Your task to perform on an android device: install app "Google Translate" Image 0: 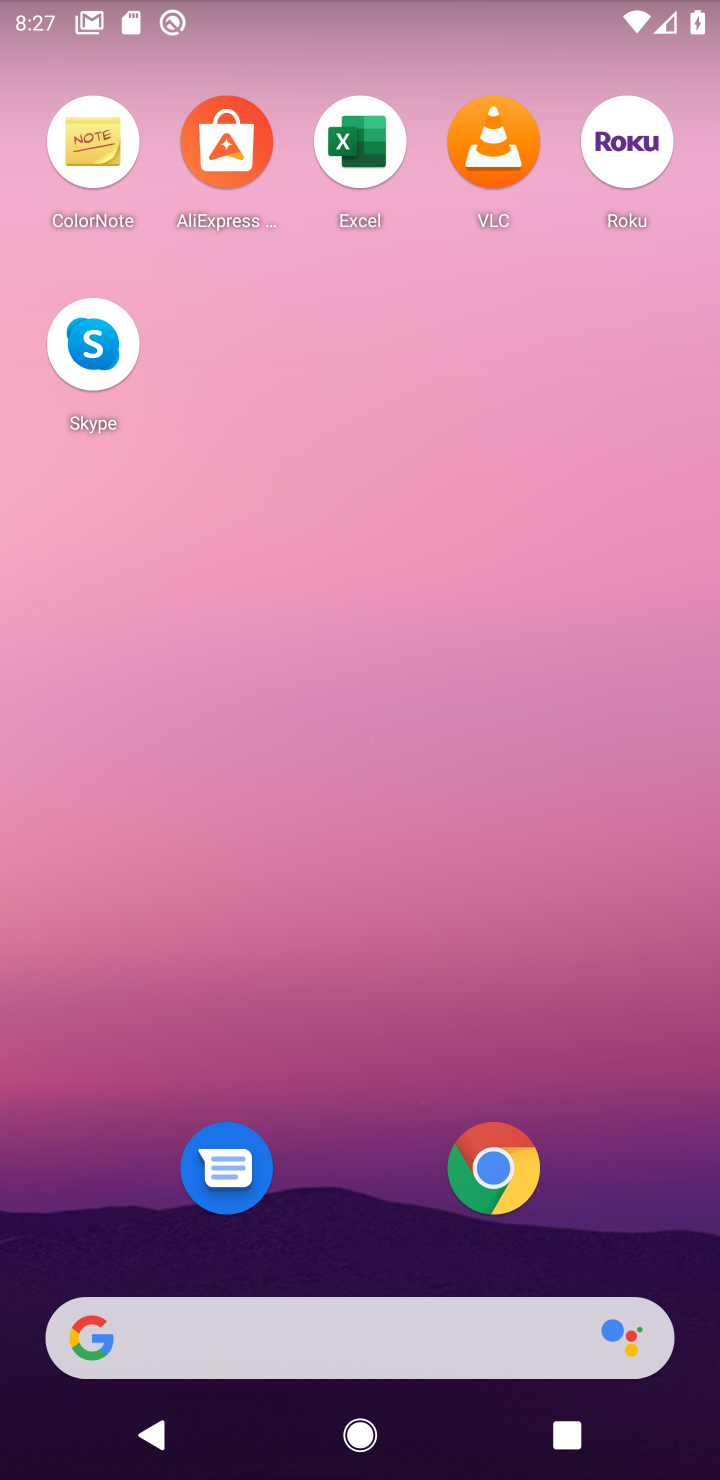
Step 0: drag from (374, 1176) to (456, 2)
Your task to perform on an android device: install app "Google Translate" Image 1: 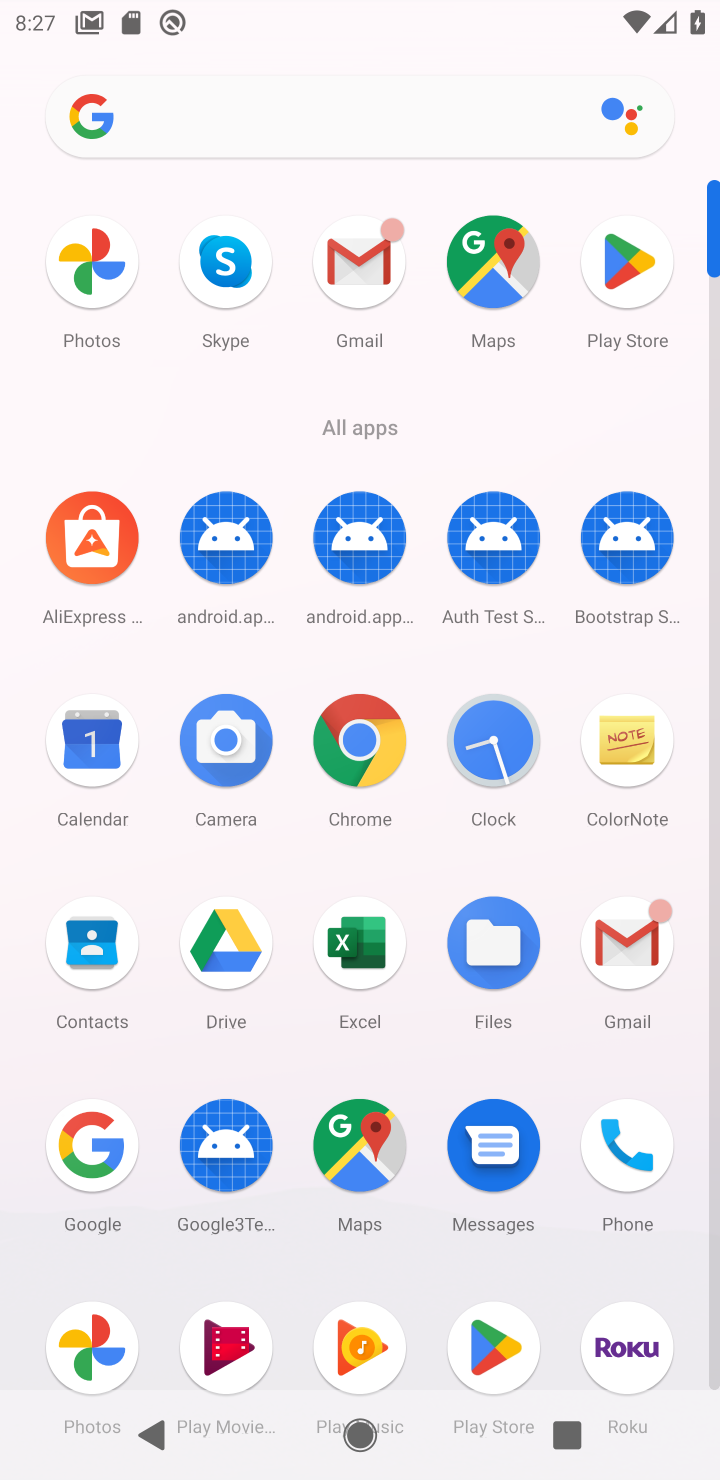
Step 1: click (654, 313)
Your task to perform on an android device: install app "Google Translate" Image 2: 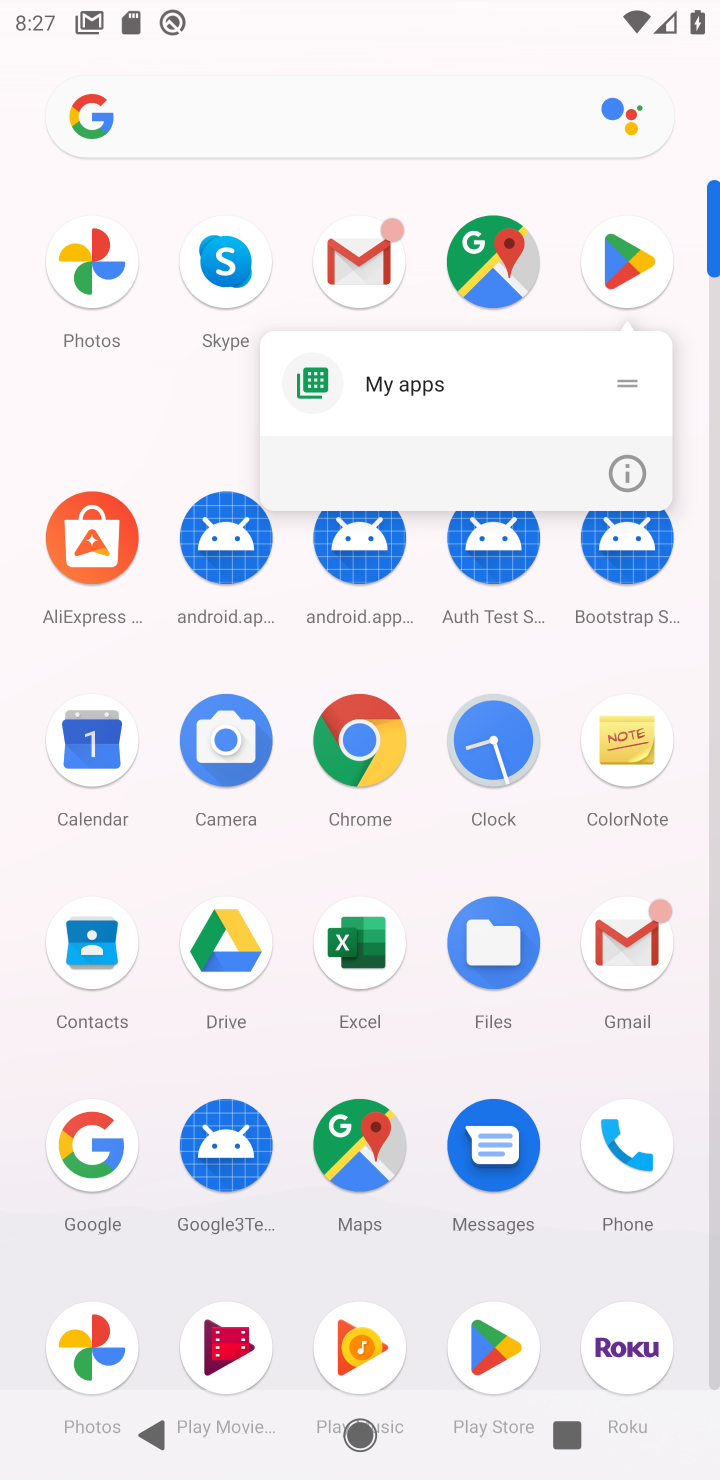
Step 2: click (638, 234)
Your task to perform on an android device: install app "Google Translate" Image 3: 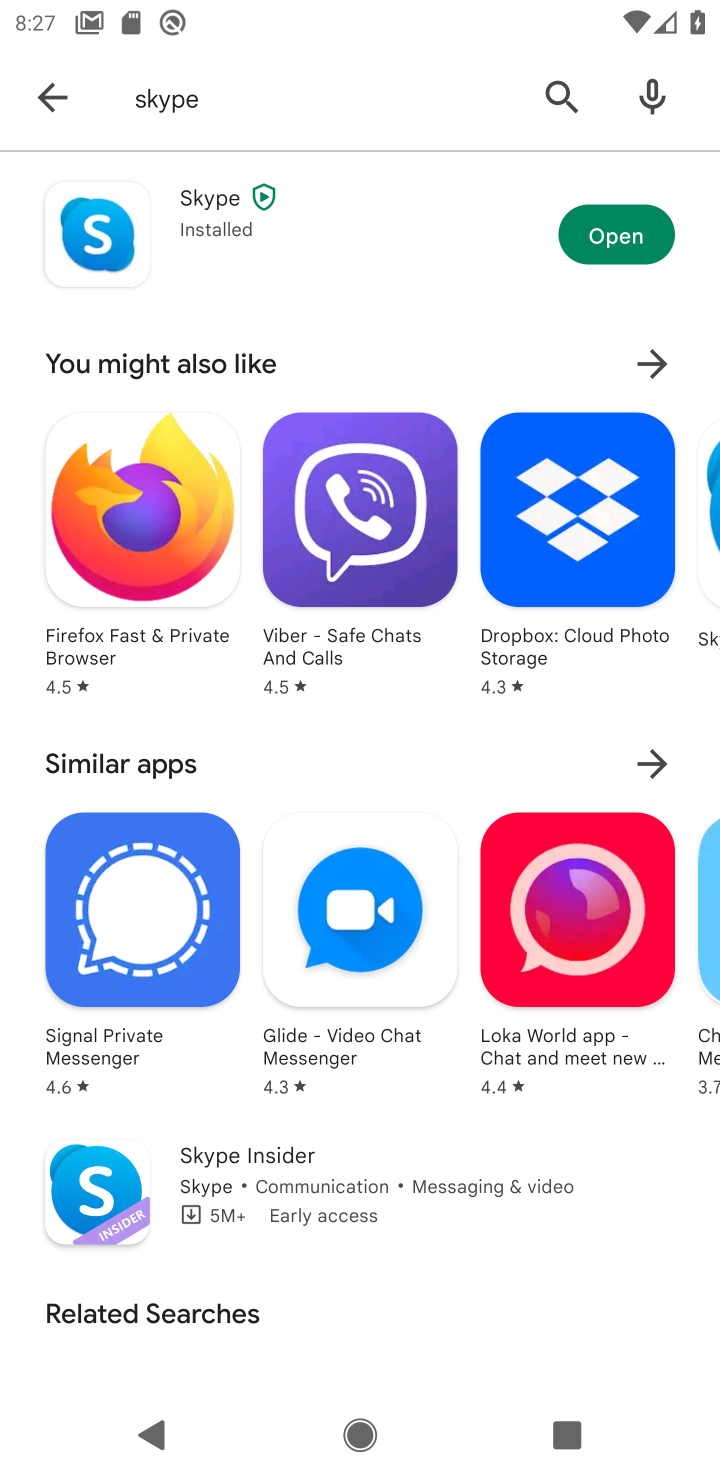
Step 3: click (314, 103)
Your task to perform on an android device: install app "Google Translate" Image 4: 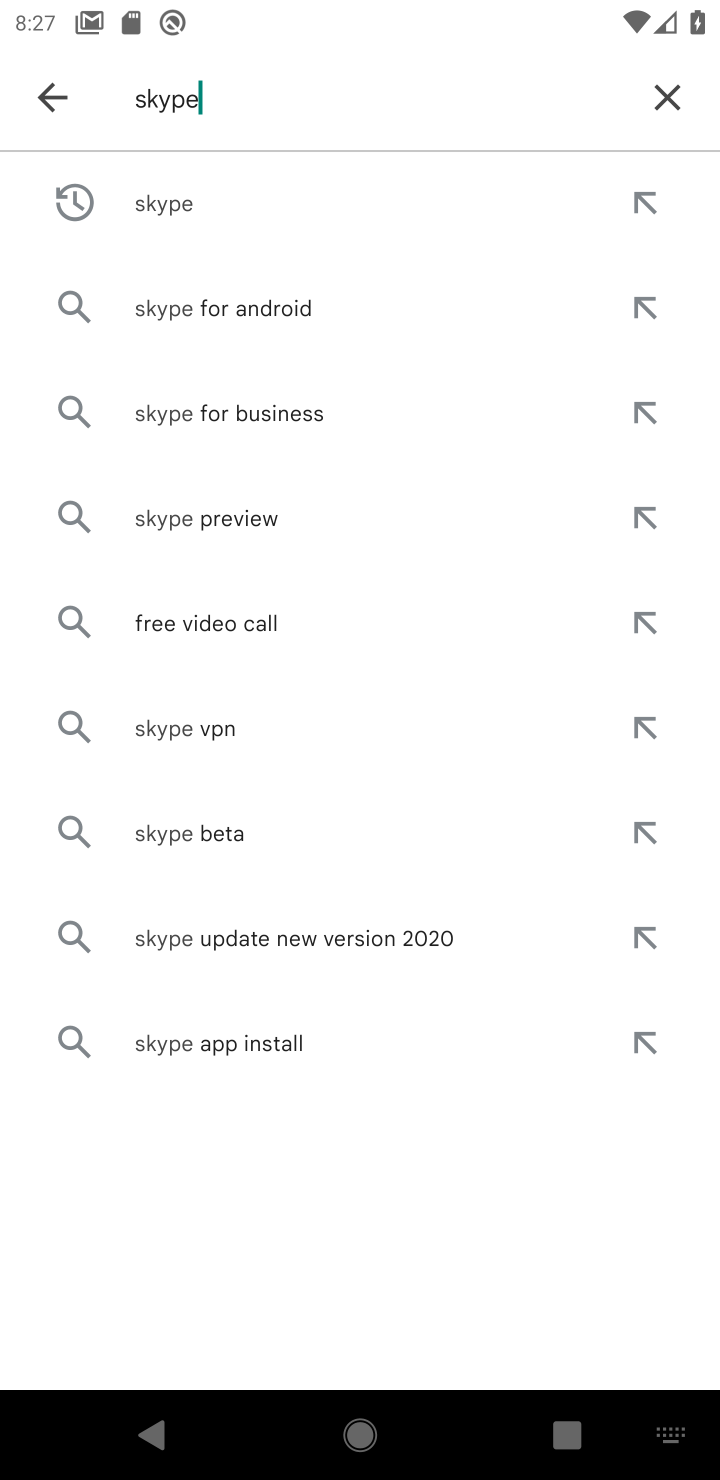
Step 4: click (681, 92)
Your task to perform on an android device: install app "Google Translate" Image 5: 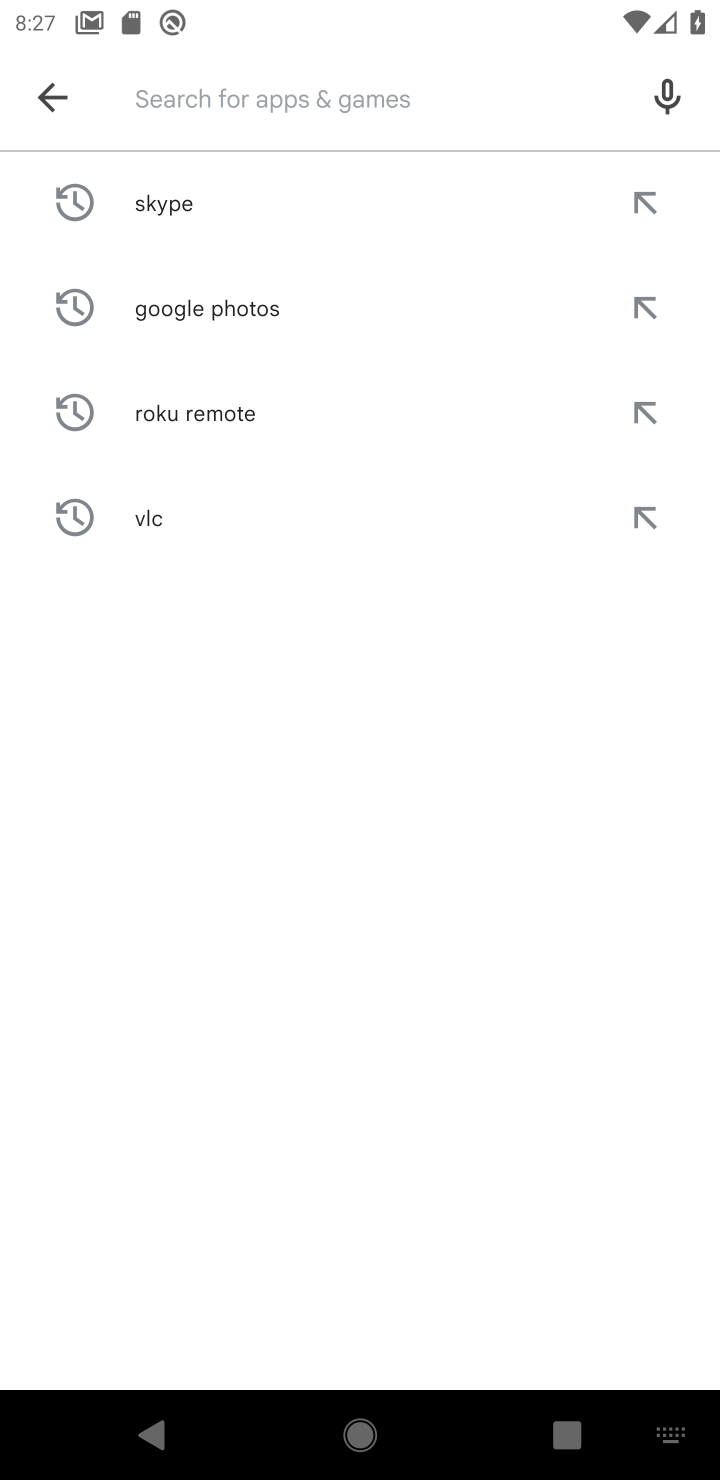
Step 5: type "google translate"
Your task to perform on an android device: install app "Google Translate" Image 6: 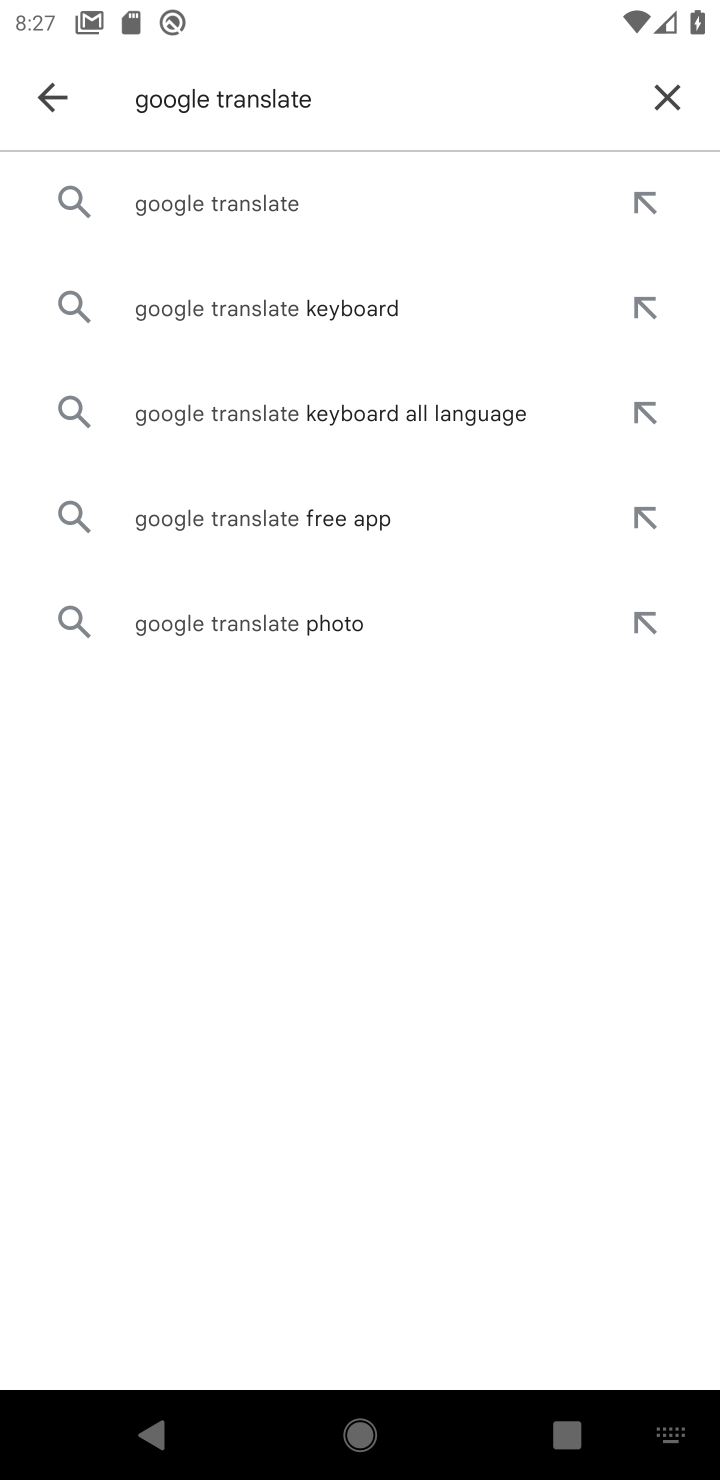
Step 6: click (214, 192)
Your task to perform on an android device: install app "Google Translate" Image 7: 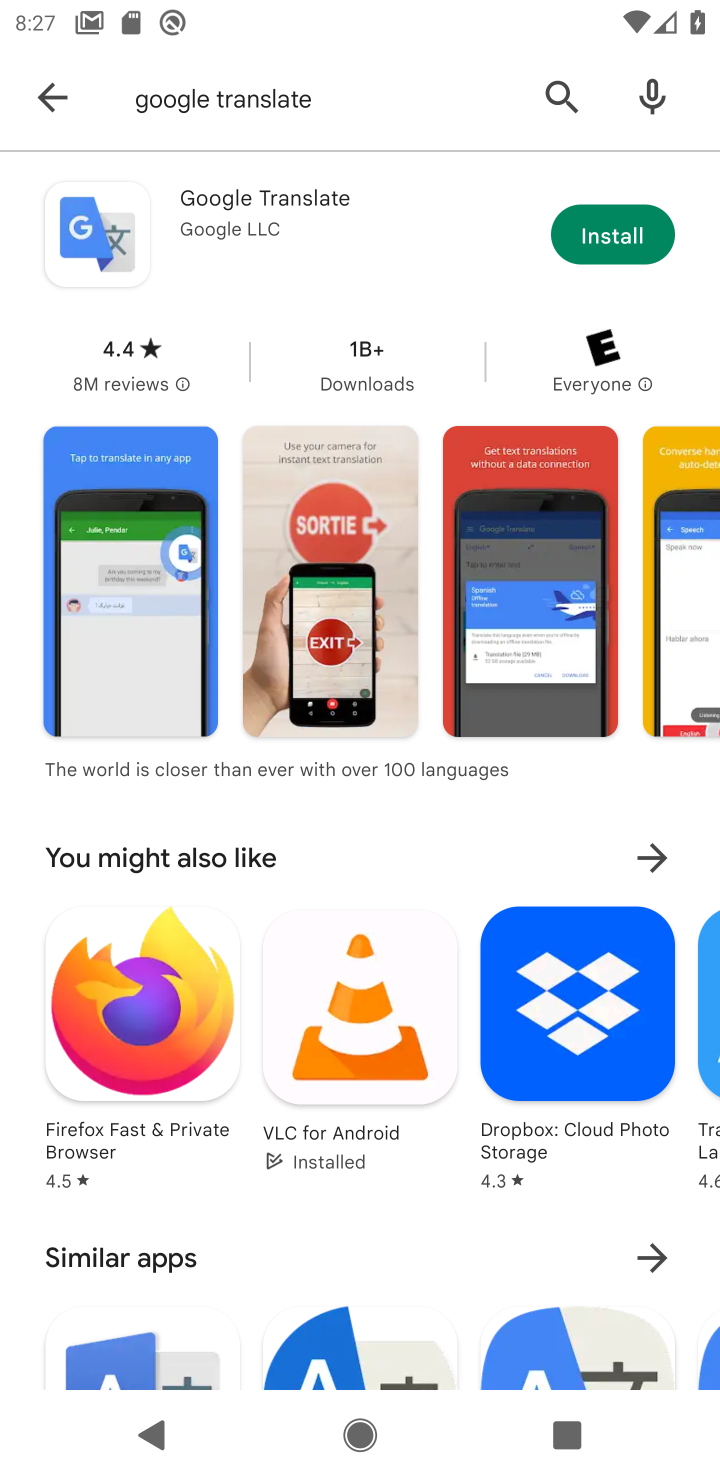
Step 7: click (579, 226)
Your task to perform on an android device: install app "Google Translate" Image 8: 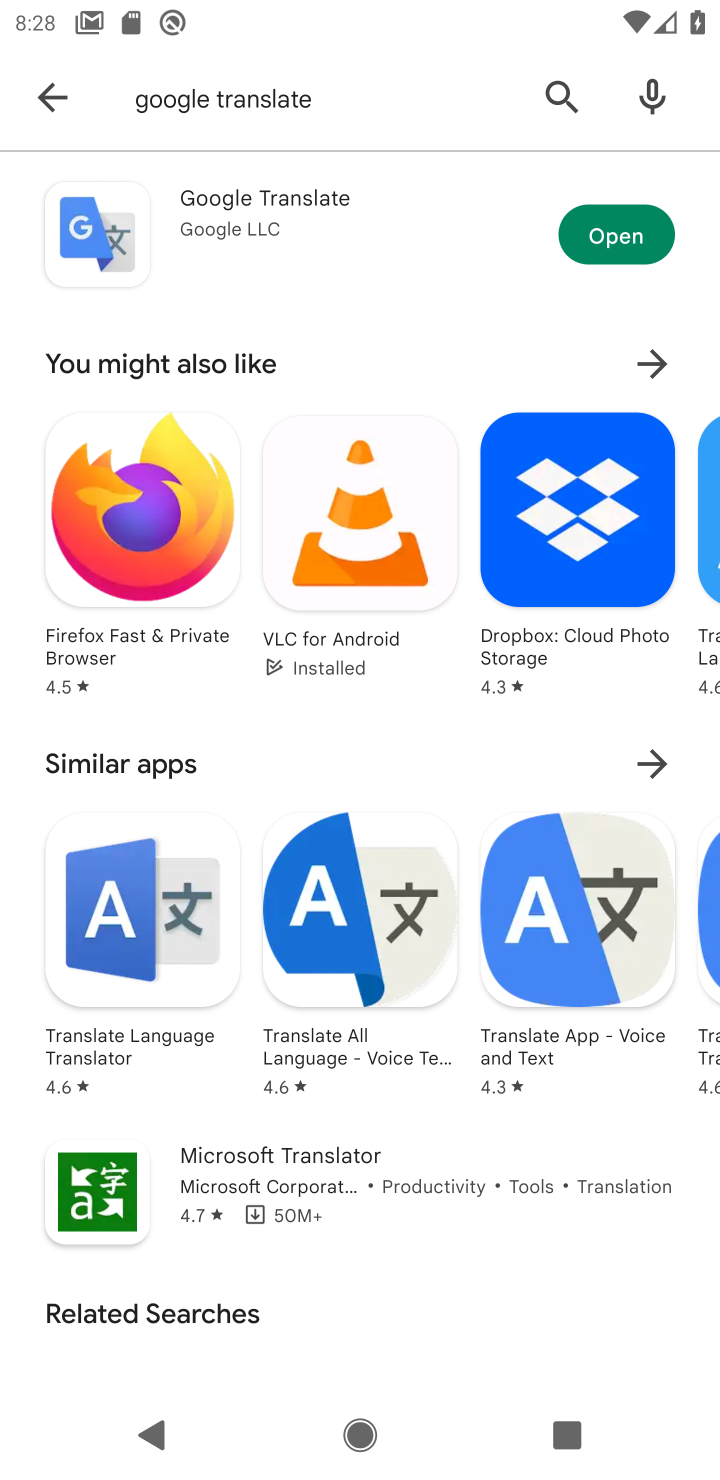
Step 8: task complete